Your task to perform on an android device: Check the weather Image 0: 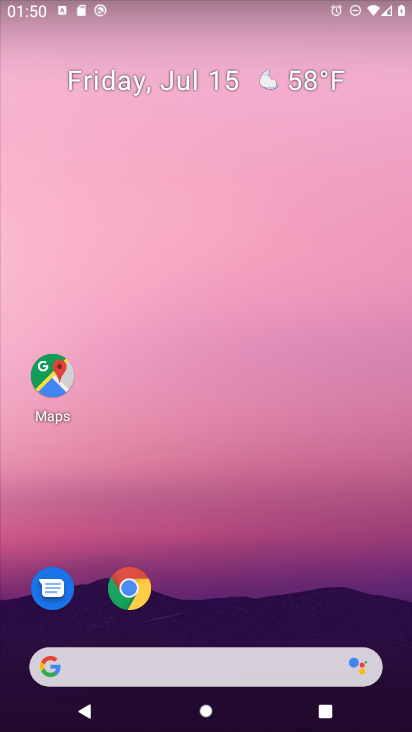
Step 0: click (288, 70)
Your task to perform on an android device: Check the weather Image 1: 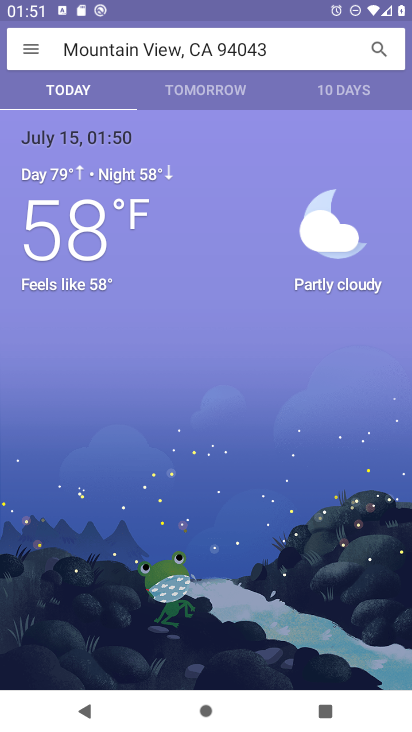
Step 1: task complete